Your task to perform on an android device: What's the weather? Image 0: 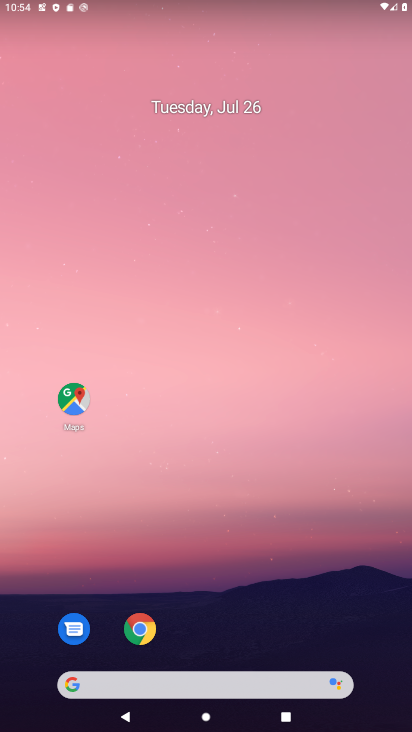
Step 0: click (121, 689)
Your task to perform on an android device: What's the weather? Image 1: 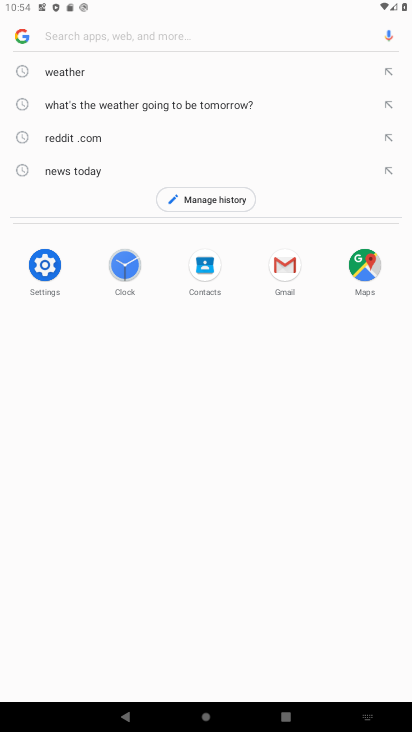
Step 1: click (72, 70)
Your task to perform on an android device: What's the weather? Image 2: 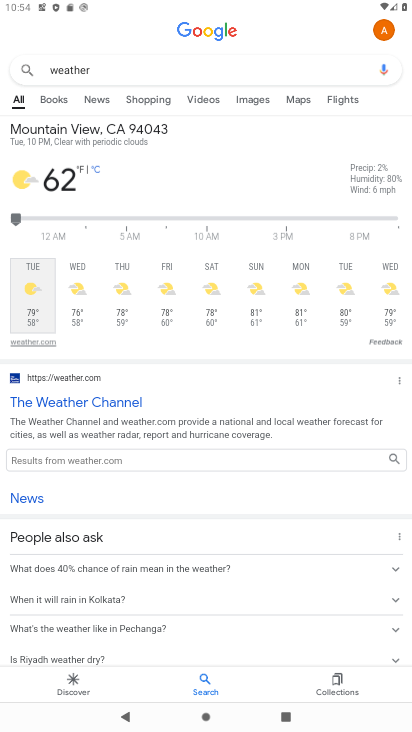
Step 2: task complete